Your task to perform on an android device: Search for a new blush Image 0: 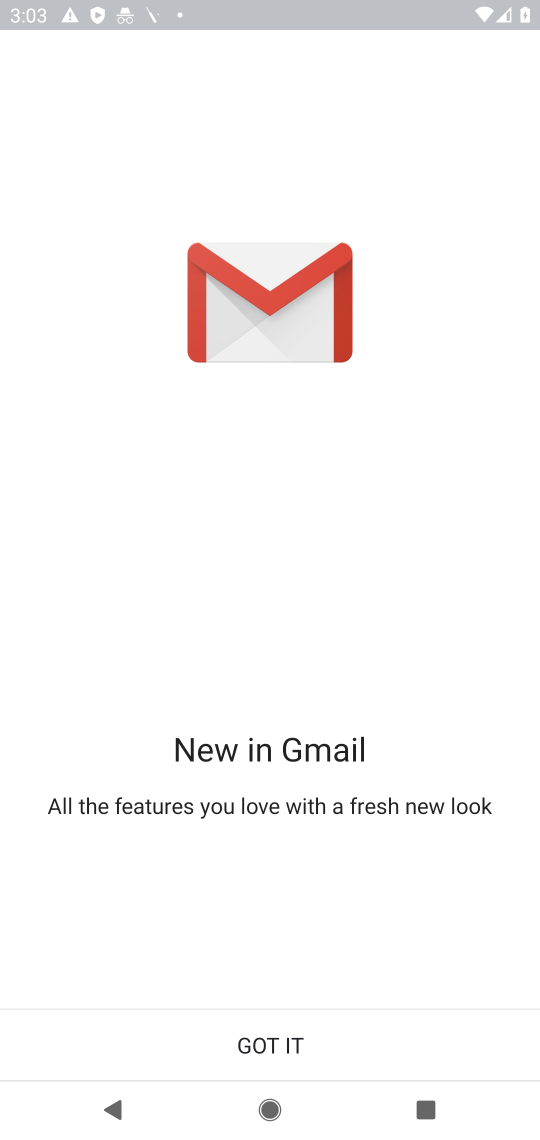
Step 0: press home button
Your task to perform on an android device: Search for a new blush Image 1: 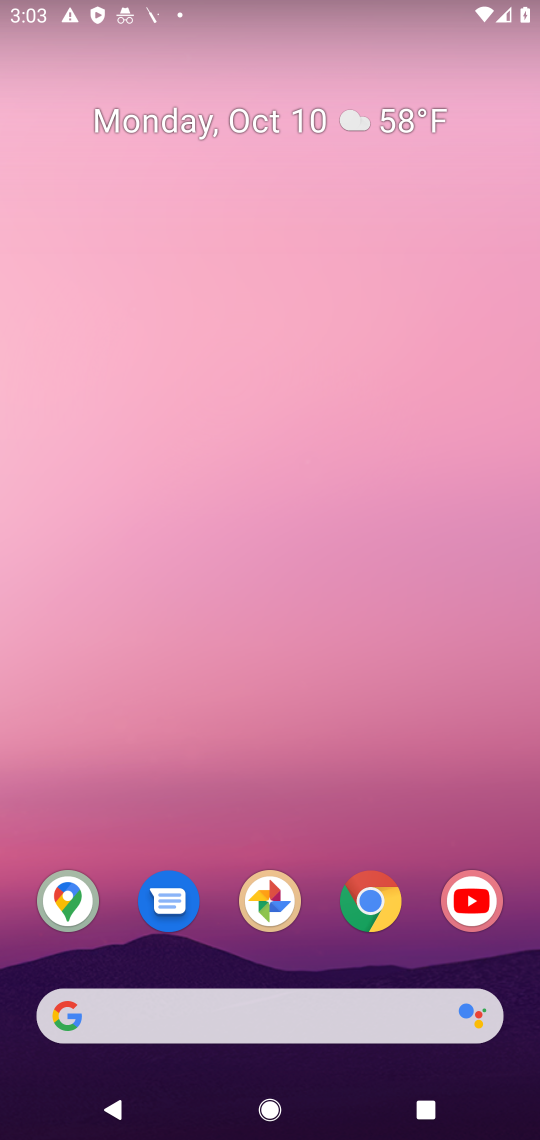
Step 1: drag from (373, 936) to (326, 224)
Your task to perform on an android device: Search for a new blush Image 2: 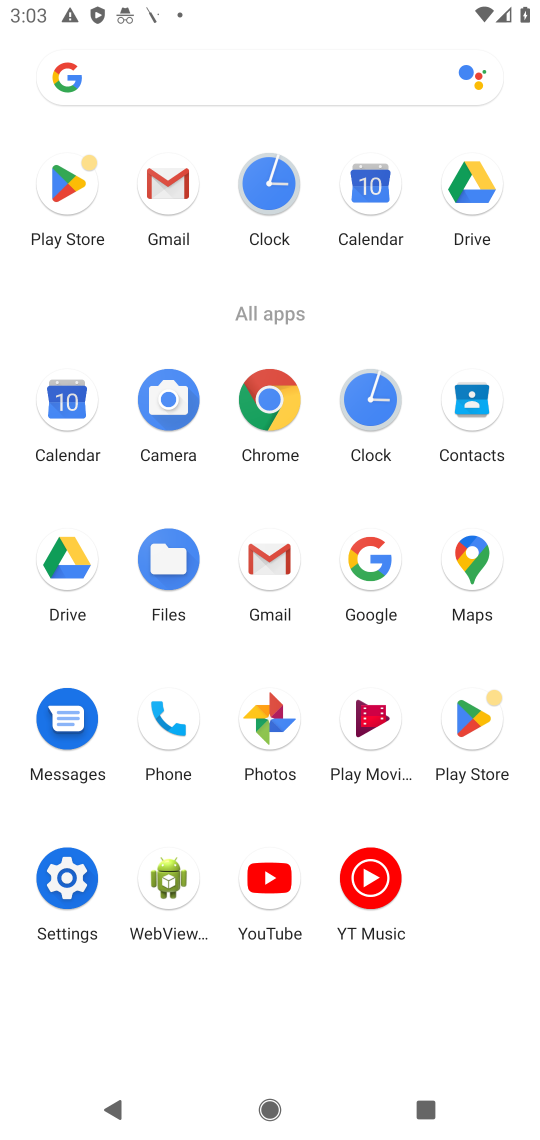
Step 2: click (378, 574)
Your task to perform on an android device: Search for a new blush Image 3: 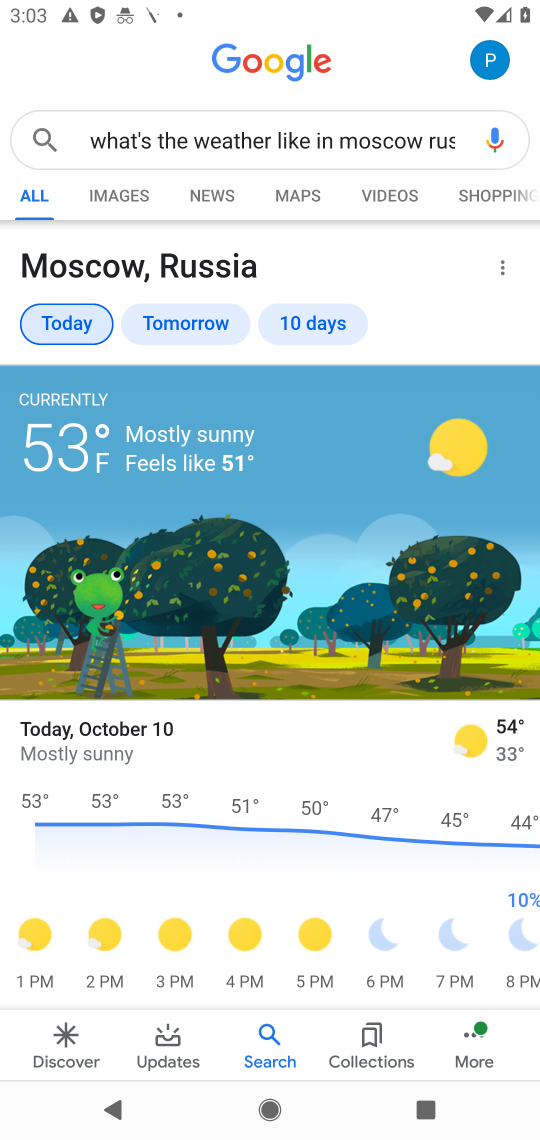
Step 3: click (413, 145)
Your task to perform on an android device: Search for a new blush Image 4: 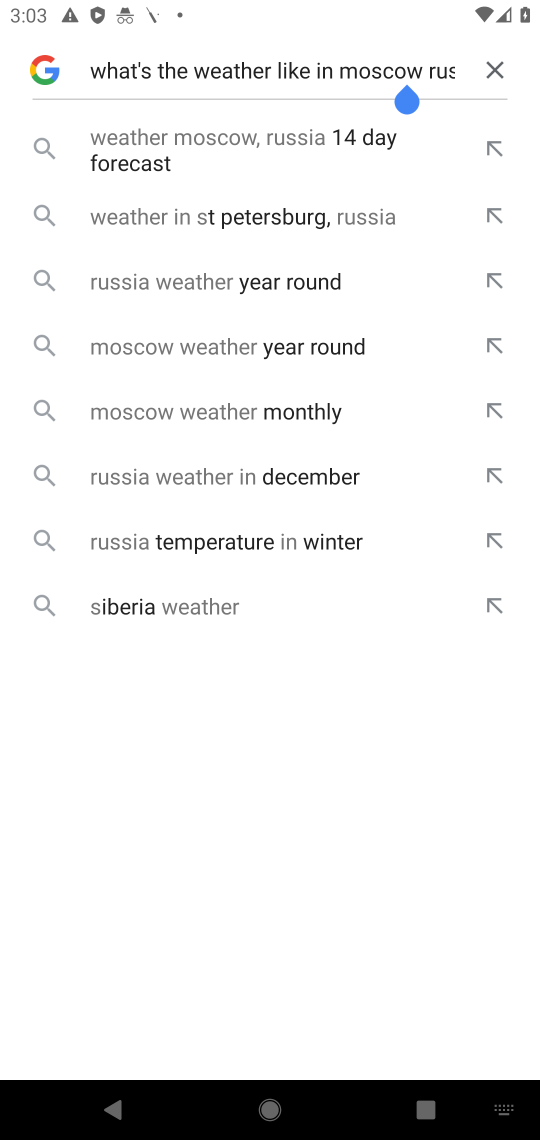
Step 4: click (496, 77)
Your task to perform on an android device: Search for a new blush Image 5: 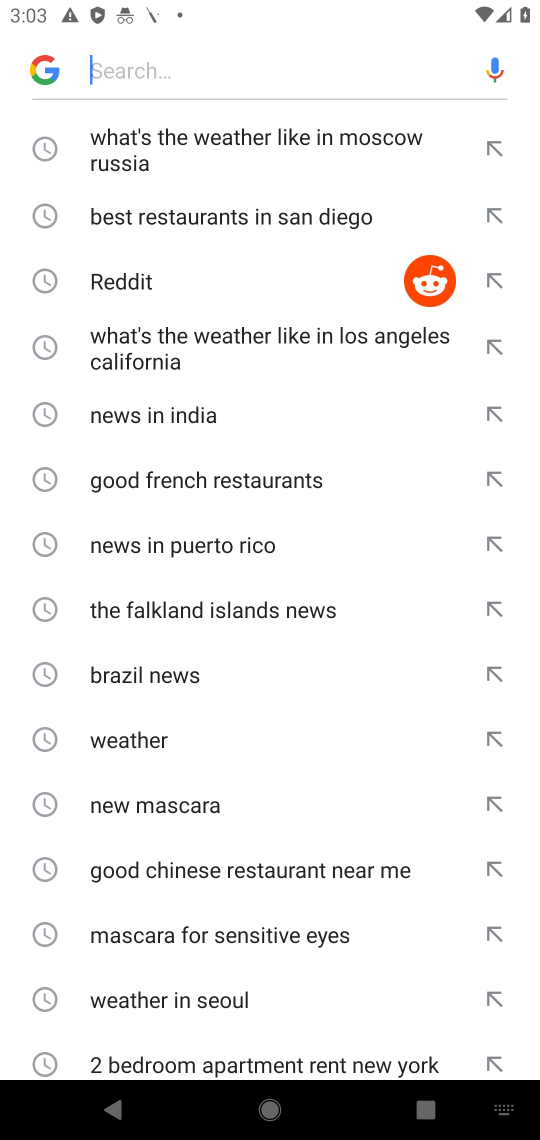
Step 5: type "new blush"
Your task to perform on an android device: Search for a new blush Image 6: 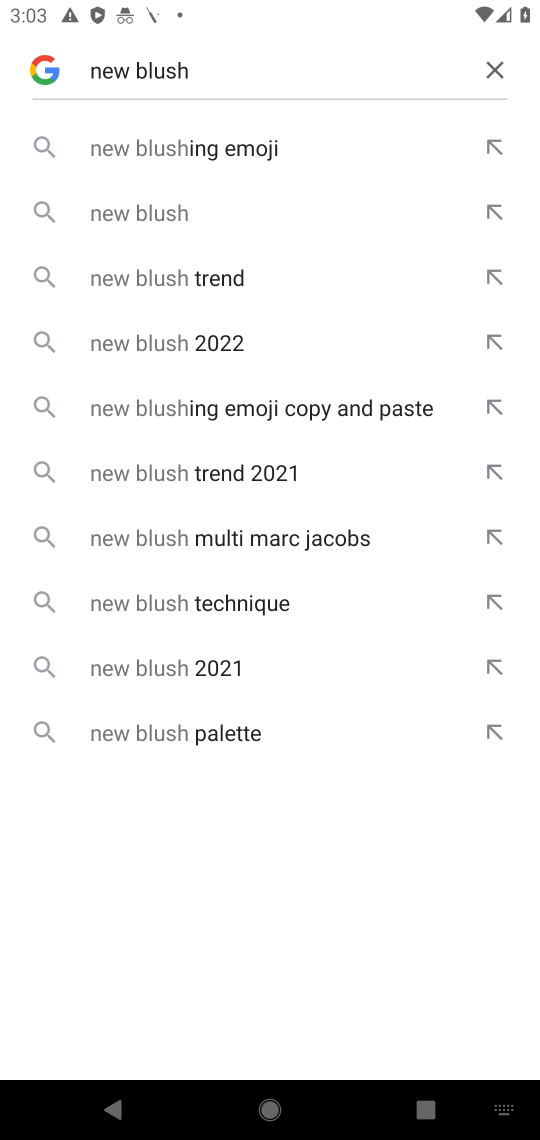
Step 6: click (212, 206)
Your task to perform on an android device: Search for a new blush Image 7: 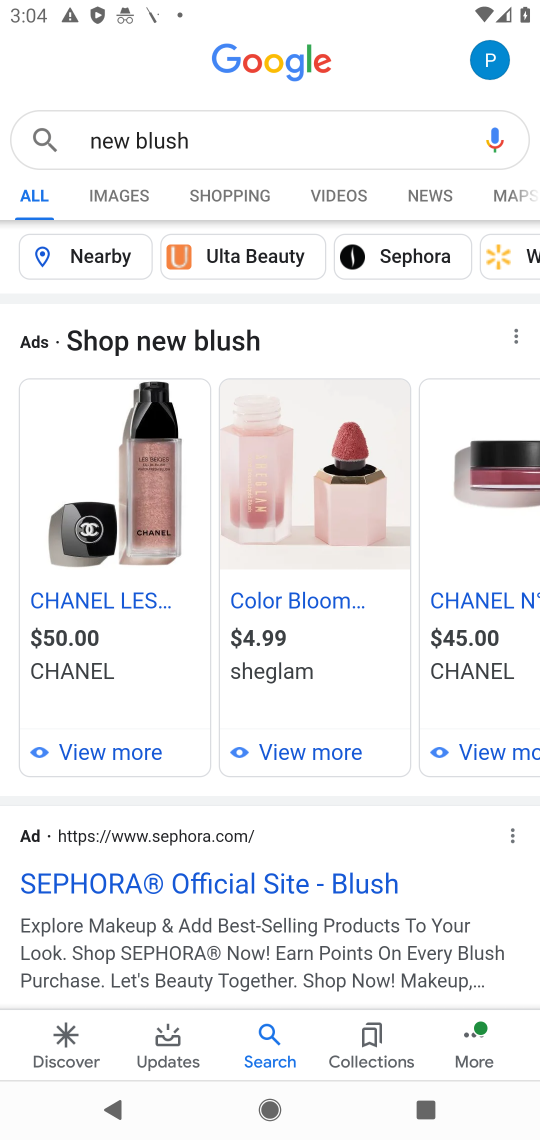
Step 7: task complete